Your task to perform on an android device: see tabs open on other devices in the chrome app Image 0: 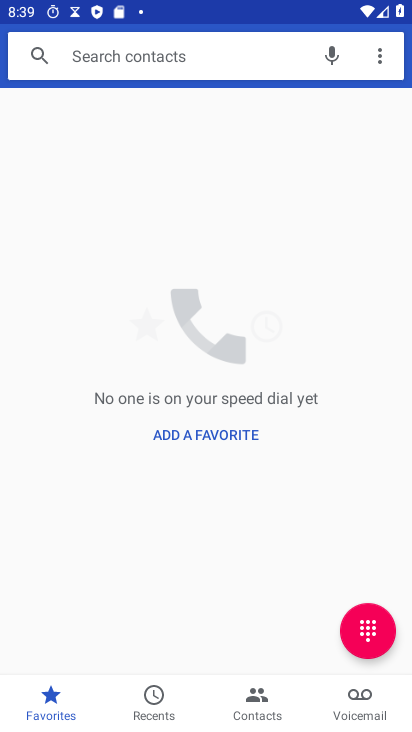
Step 0: drag from (259, 612) to (233, 136)
Your task to perform on an android device: see tabs open on other devices in the chrome app Image 1: 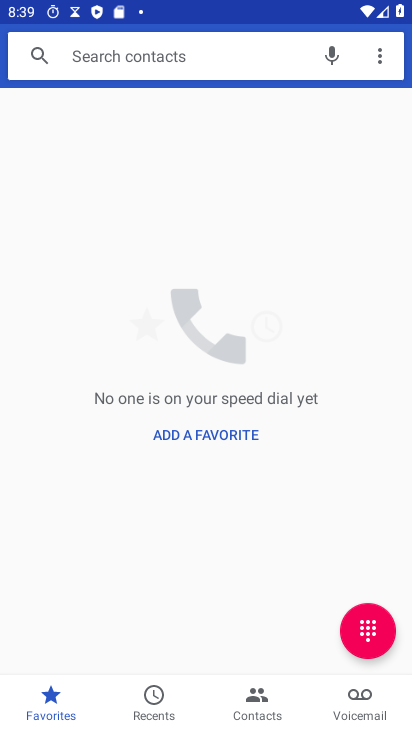
Step 1: press home button
Your task to perform on an android device: see tabs open on other devices in the chrome app Image 2: 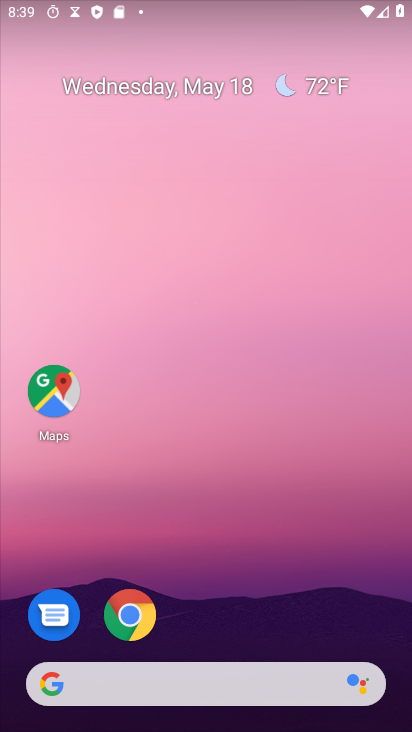
Step 2: click (119, 618)
Your task to perform on an android device: see tabs open on other devices in the chrome app Image 3: 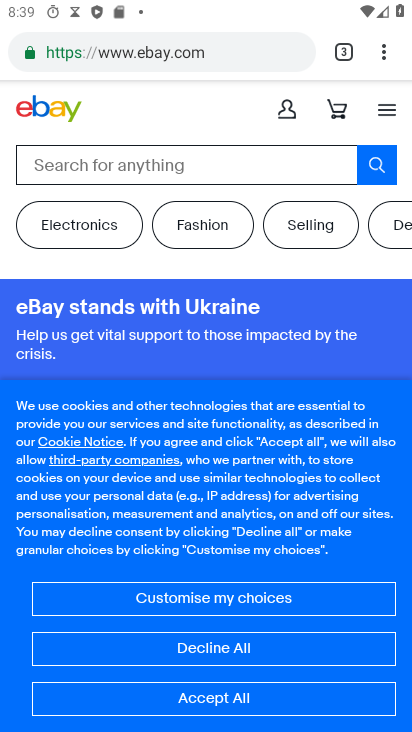
Step 3: click (384, 54)
Your task to perform on an android device: see tabs open on other devices in the chrome app Image 4: 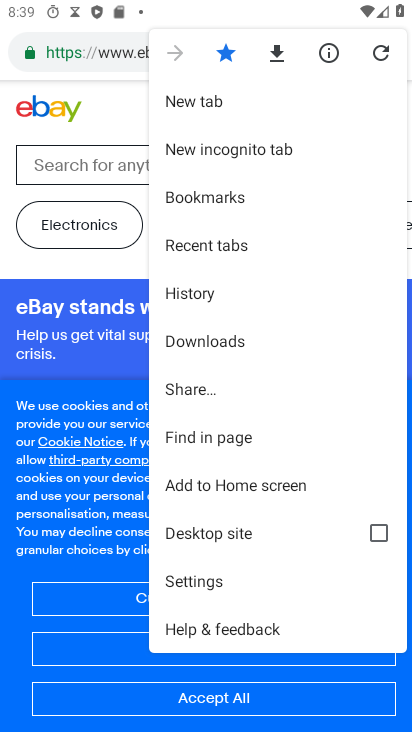
Step 4: click (210, 246)
Your task to perform on an android device: see tabs open on other devices in the chrome app Image 5: 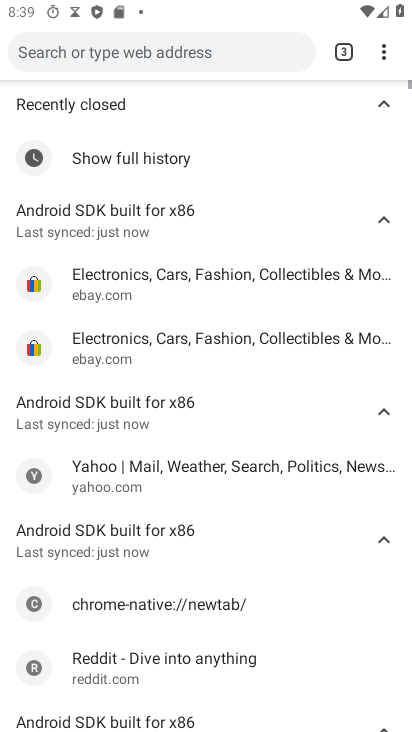
Step 5: task complete